Your task to perform on an android device: Open ESPN.com Image 0: 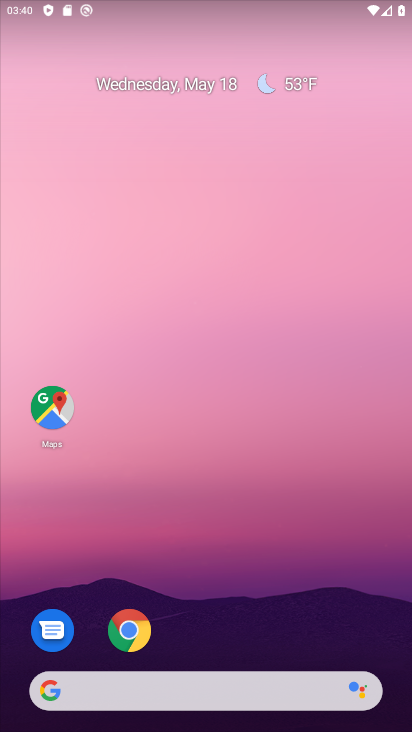
Step 0: click (132, 637)
Your task to perform on an android device: Open ESPN.com Image 1: 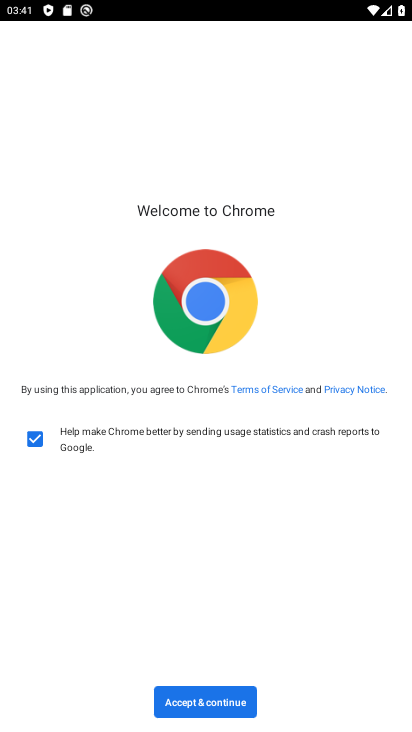
Step 1: click (199, 699)
Your task to perform on an android device: Open ESPN.com Image 2: 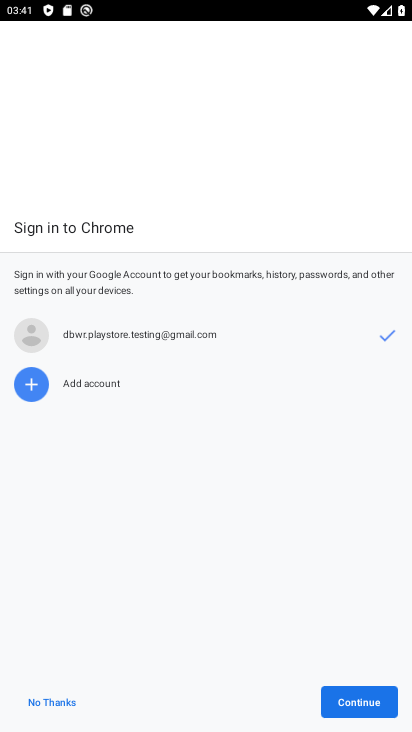
Step 2: click (363, 700)
Your task to perform on an android device: Open ESPN.com Image 3: 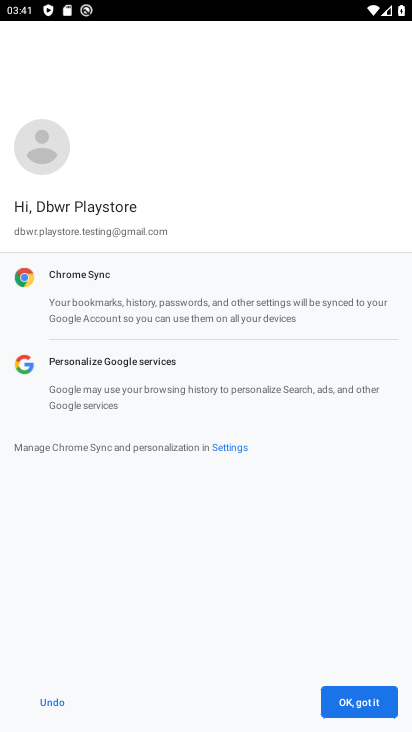
Step 3: click (360, 699)
Your task to perform on an android device: Open ESPN.com Image 4: 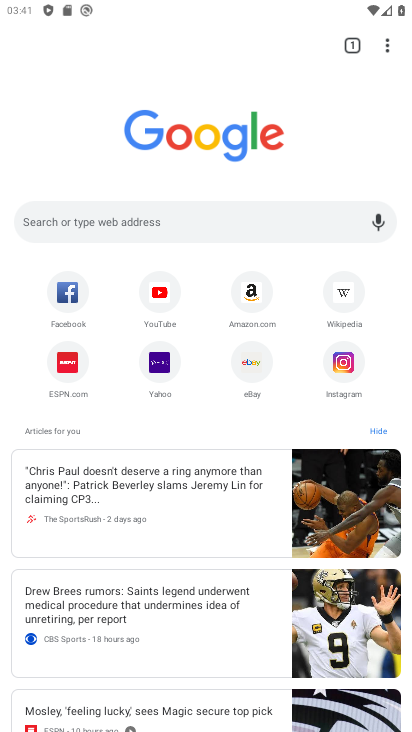
Step 4: click (66, 361)
Your task to perform on an android device: Open ESPN.com Image 5: 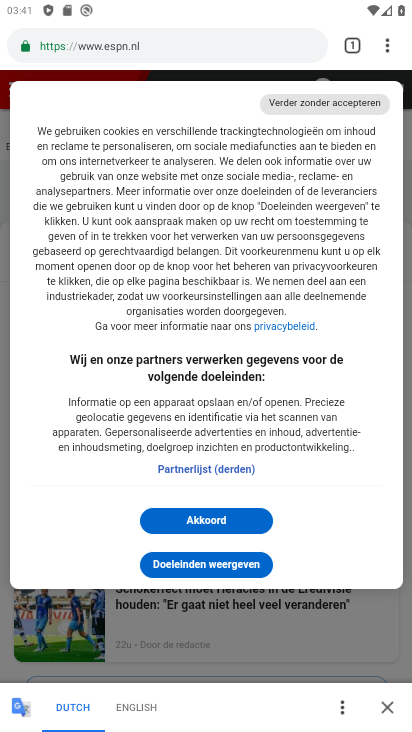
Step 5: task complete